Your task to perform on an android device: Open Wikipedia Image 0: 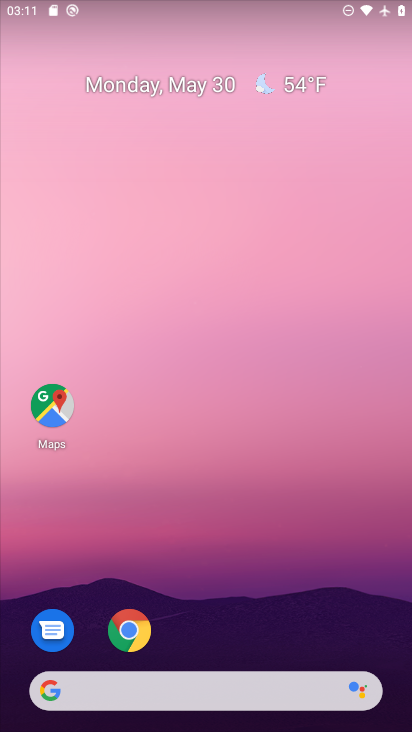
Step 0: press home button
Your task to perform on an android device: Open Wikipedia Image 1: 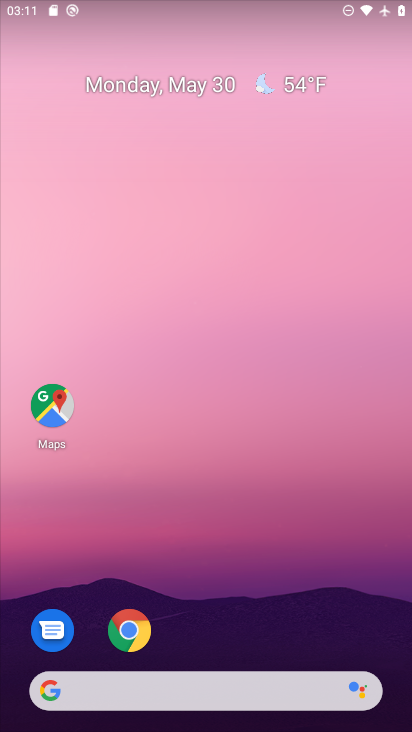
Step 1: click (135, 635)
Your task to perform on an android device: Open Wikipedia Image 2: 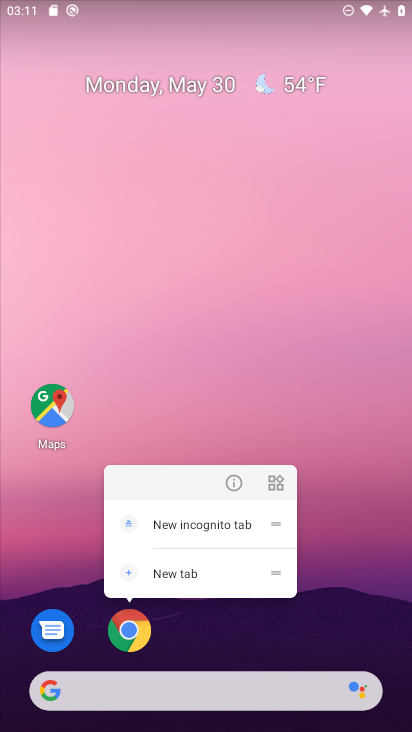
Step 2: click (129, 633)
Your task to perform on an android device: Open Wikipedia Image 3: 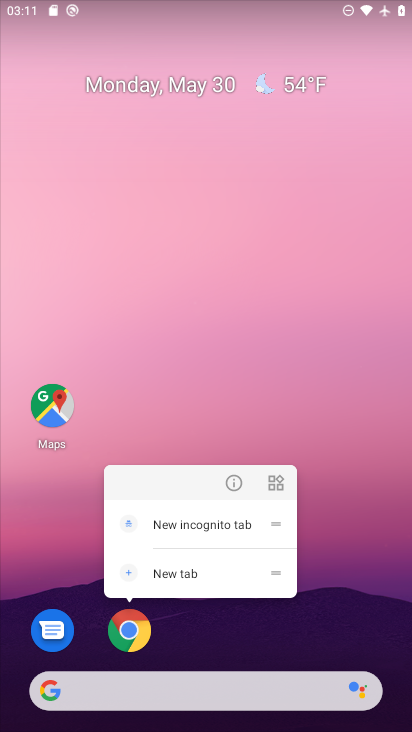
Step 3: click (122, 638)
Your task to perform on an android device: Open Wikipedia Image 4: 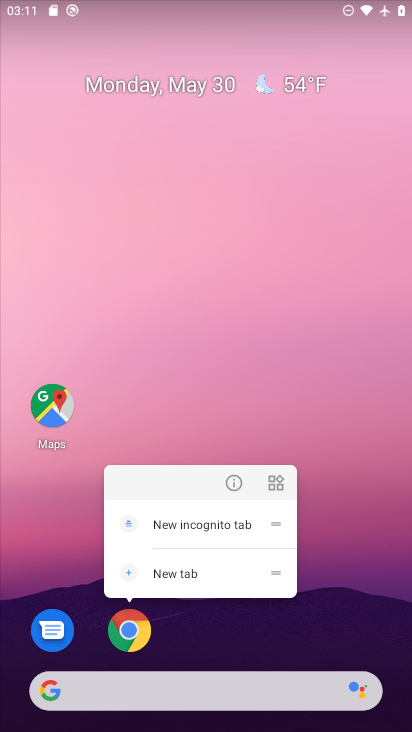
Step 4: click (127, 633)
Your task to perform on an android device: Open Wikipedia Image 5: 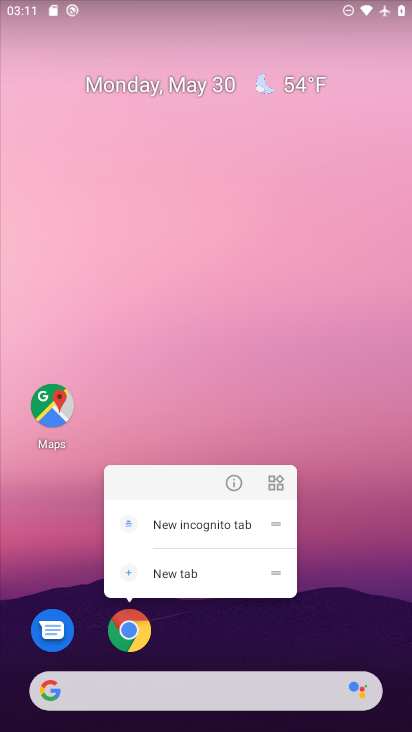
Step 5: click (131, 627)
Your task to perform on an android device: Open Wikipedia Image 6: 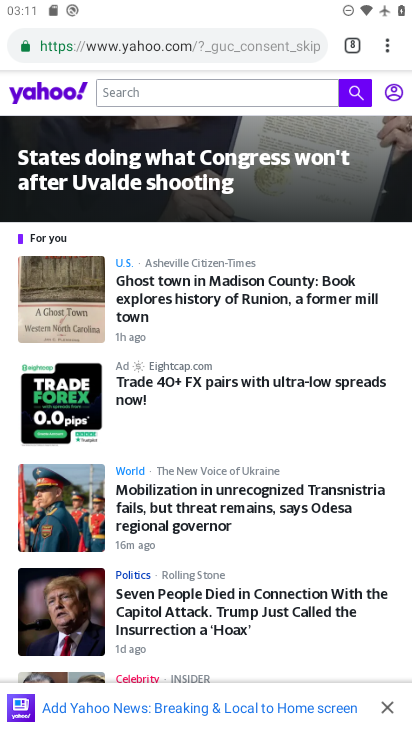
Step 6: drag from (387, 44) to (237, 86)
Your task to perform on an android device: Open Wikipedia Image 7: 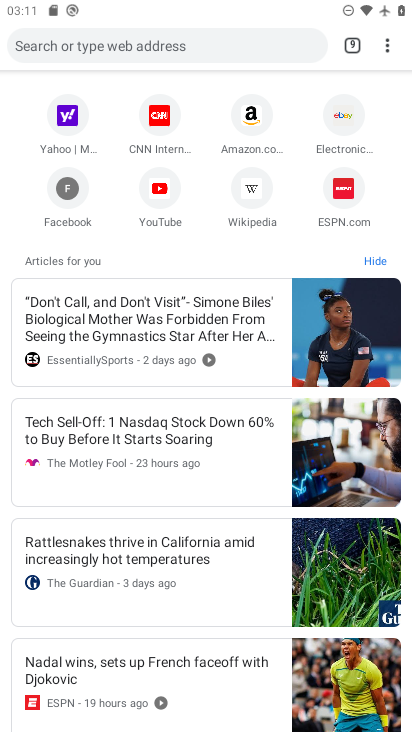
Step 7: click (256, 190)
Your task to perform on an android device: Open Wikipedia Image 8: 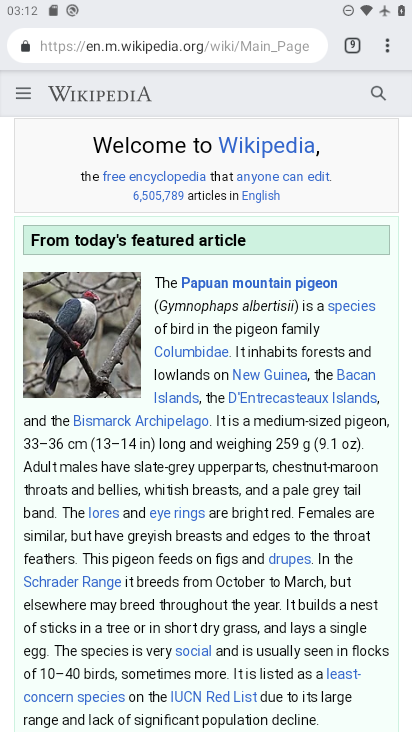
Step 8: task complete